Your task to perform on an android device: search for console tables on article.com Image 0: 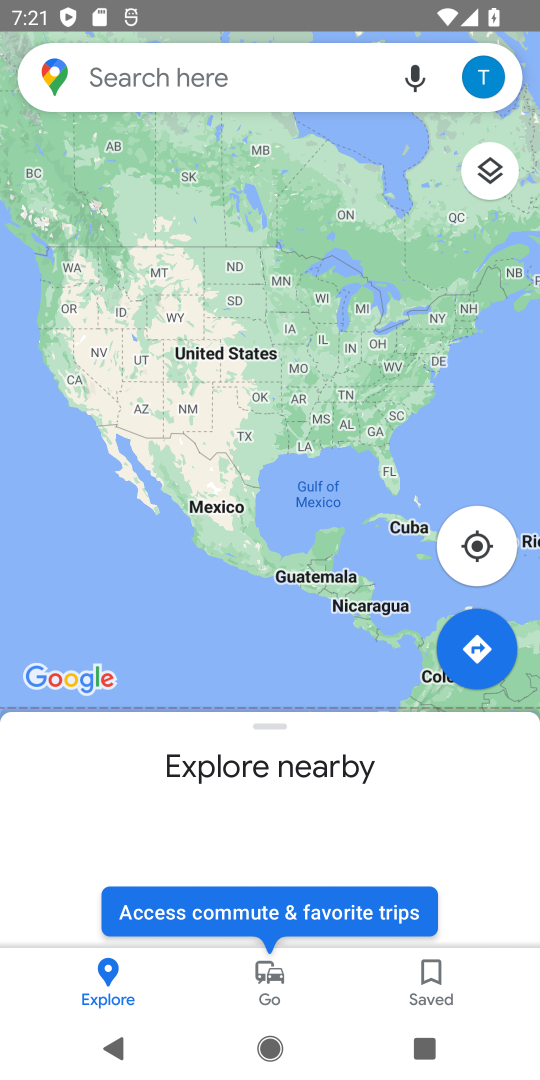
Step 0: press home button
Your task to perform on an android device: search for console tables on article.com Image 1: 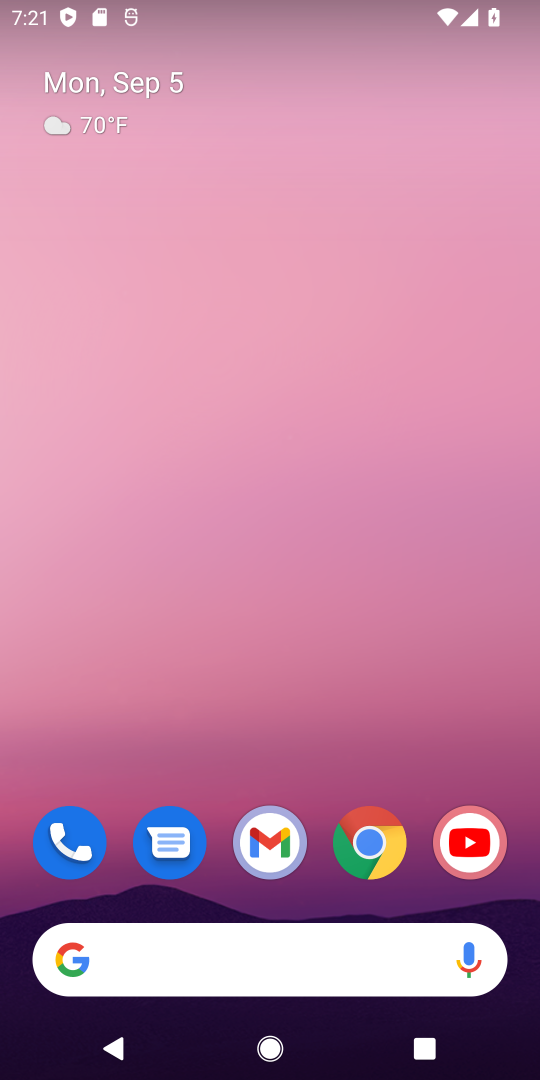
Step 1: click (371, 845)
Your task to perform on an android device: search for console tables on article.com Image 2: 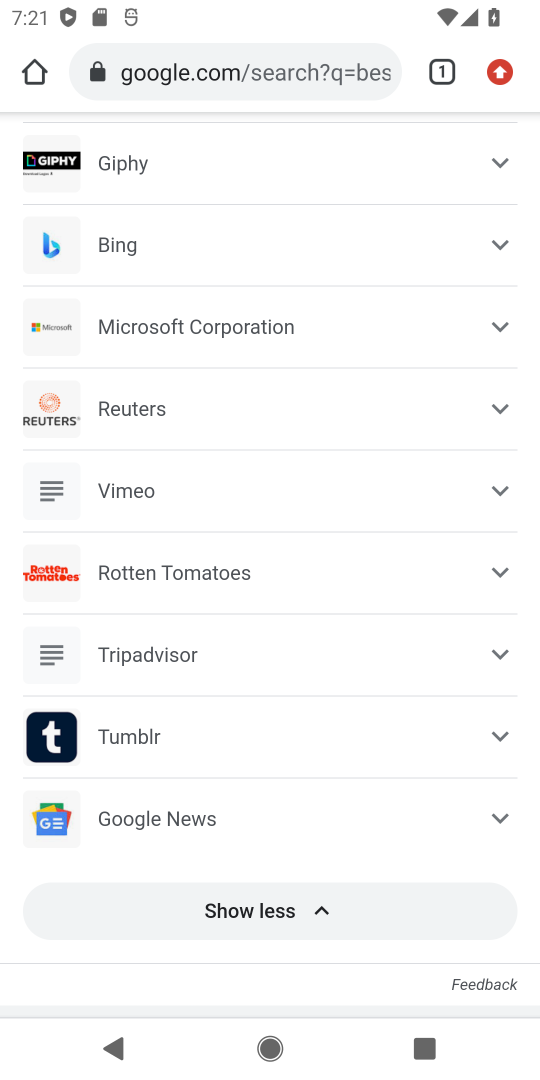
Step 2: click (308, 78)
Your task to perform on an android device: search for console tables on article.com Image 3: 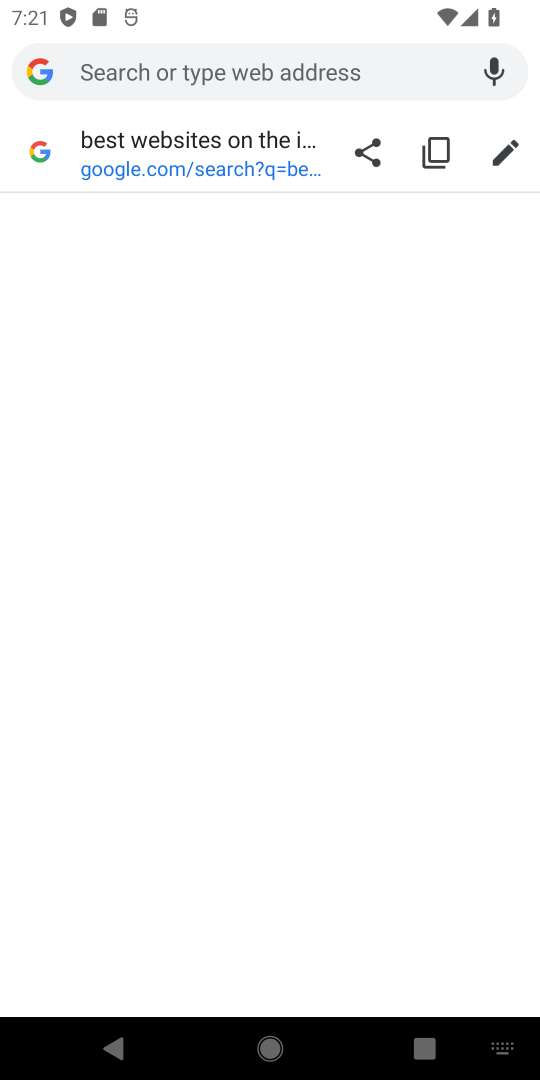
Step 3: type "article.com"
Your task to perform on an android device: search for console tables on article.com Image 4: 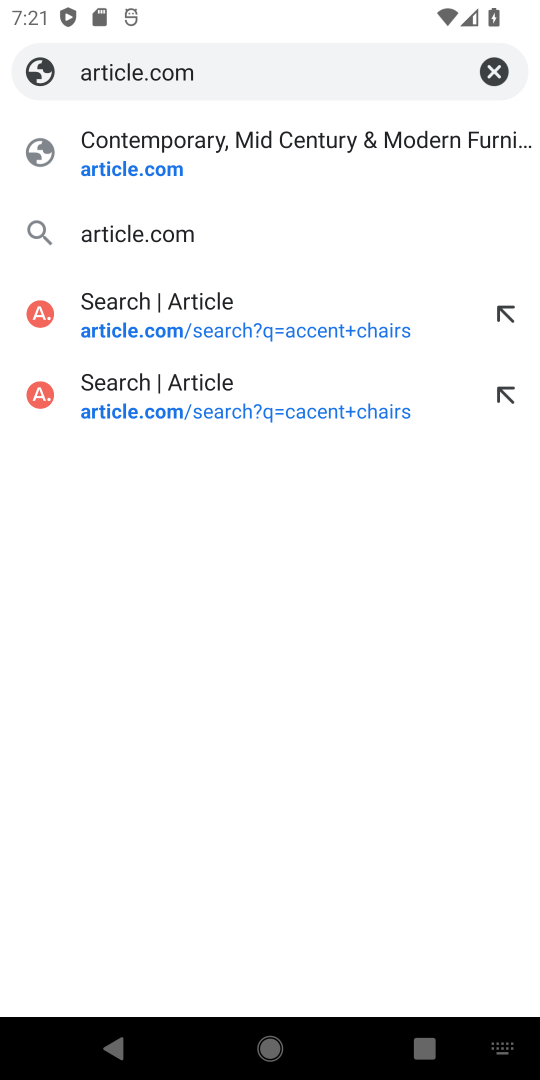
Step 4: click (203, 233)
Your task to perform on an android device: search for console tables on article.com Image 5: 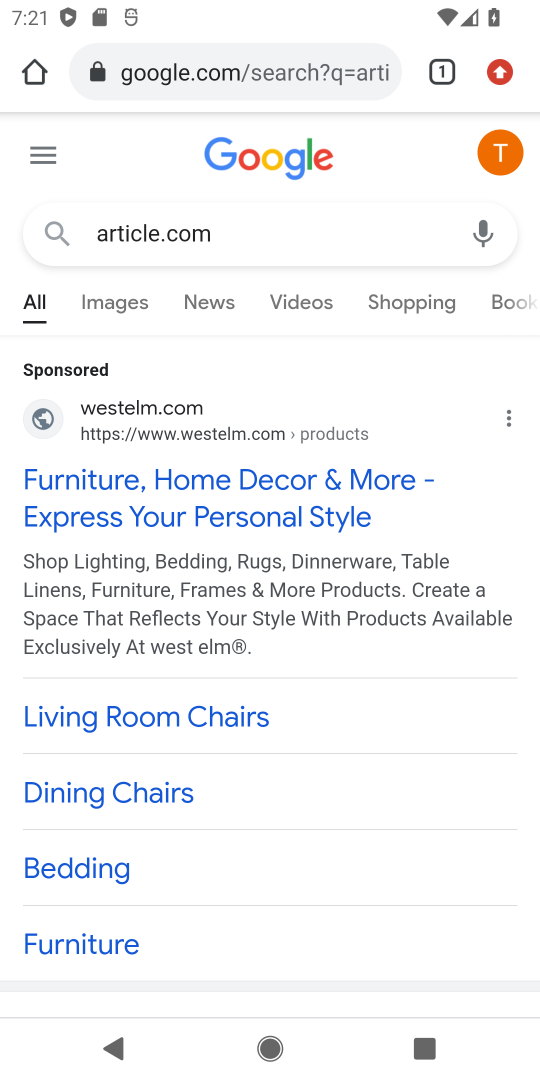
Step 5: drag from (244, 906) to (377, 705)
Your task to perform on an android device: search for console tables on article.com Image 6: 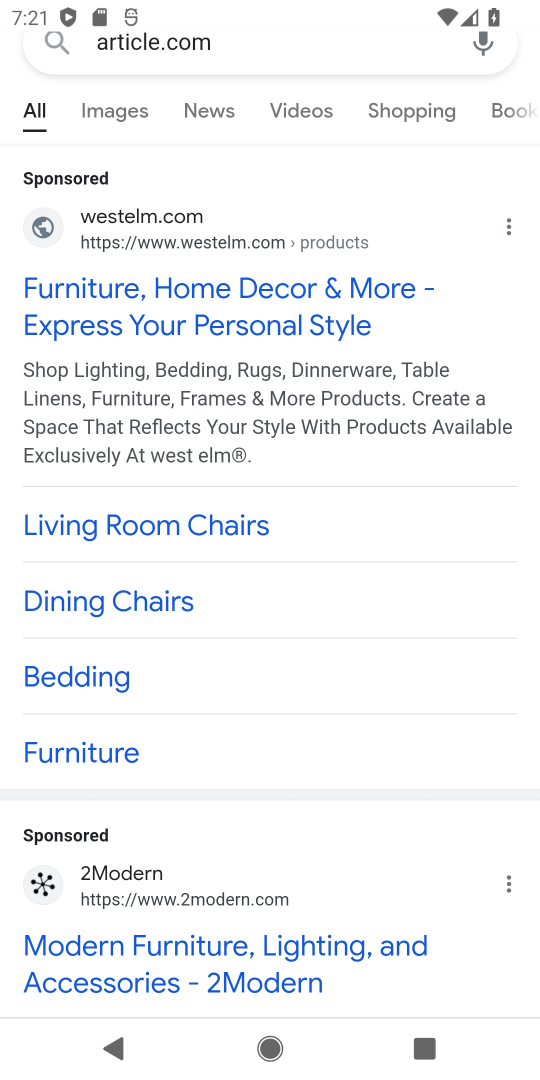
Step 6: drag from (272, 930) to (348, 739)
Your task to perform on an android device: search for console tables on article.com Image 7: 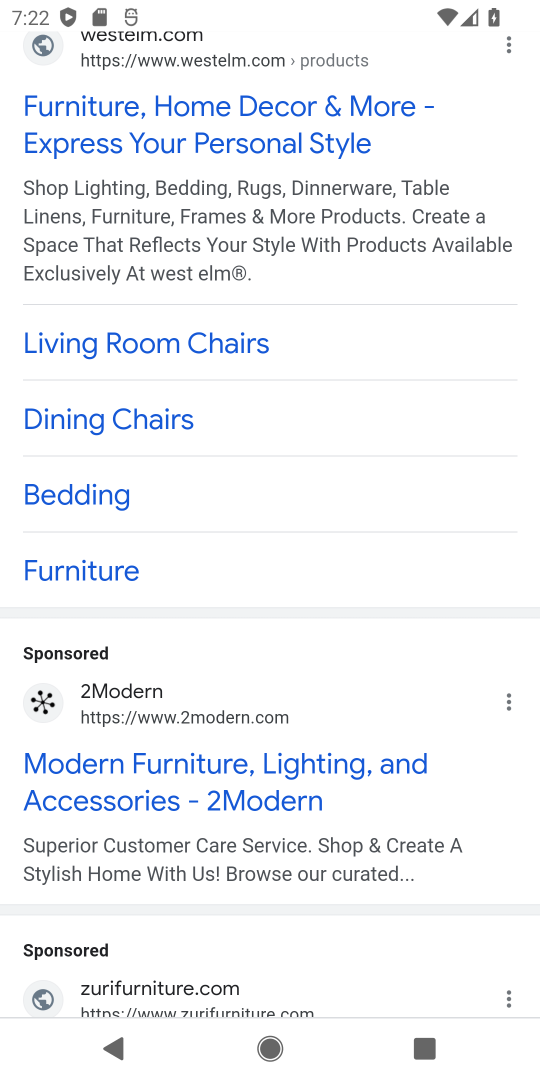
Step 7: drag from (229, 900) to (320, 742)
Your task to perform on an android device: search for console tables on article.com Image 8: 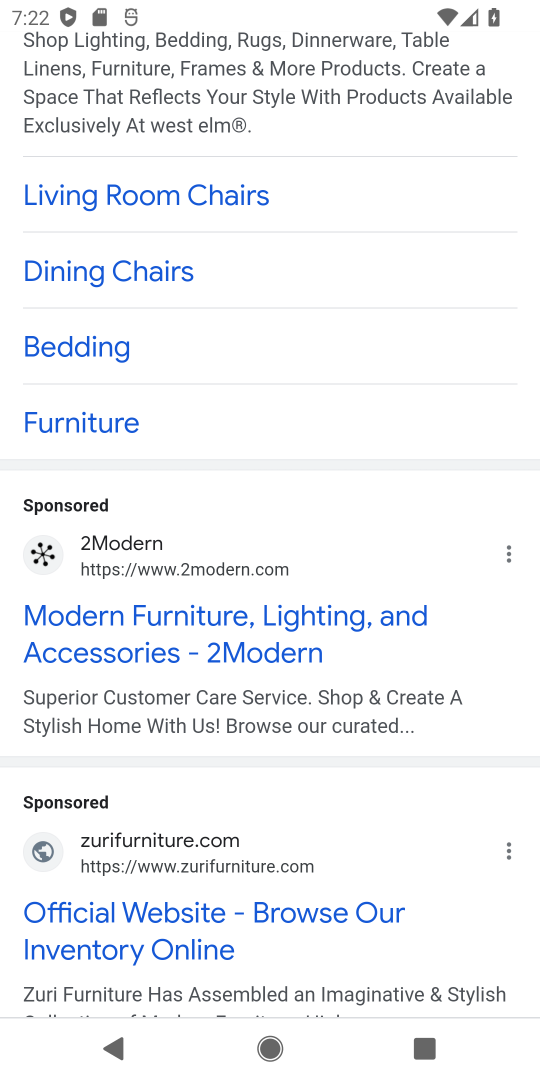
Step 8: drag from (253, 947) to (375, 751)
Your task to perform on an android device: search for console tables on article.com Image 9: 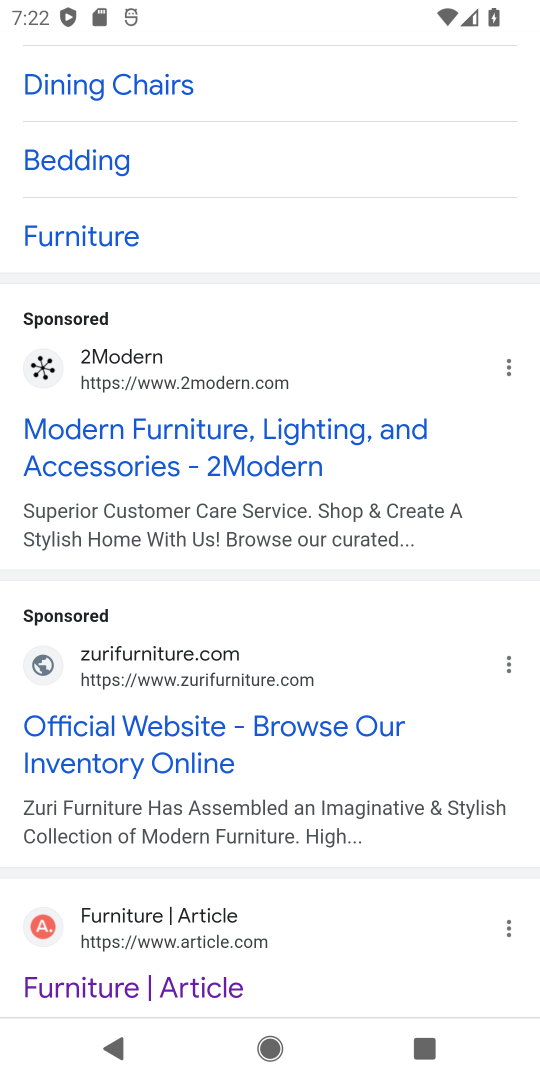
Step 9: drag from (283, 968) to (360, 819)
Your task to perform on an android device: search for console tables on article.com Image 10: 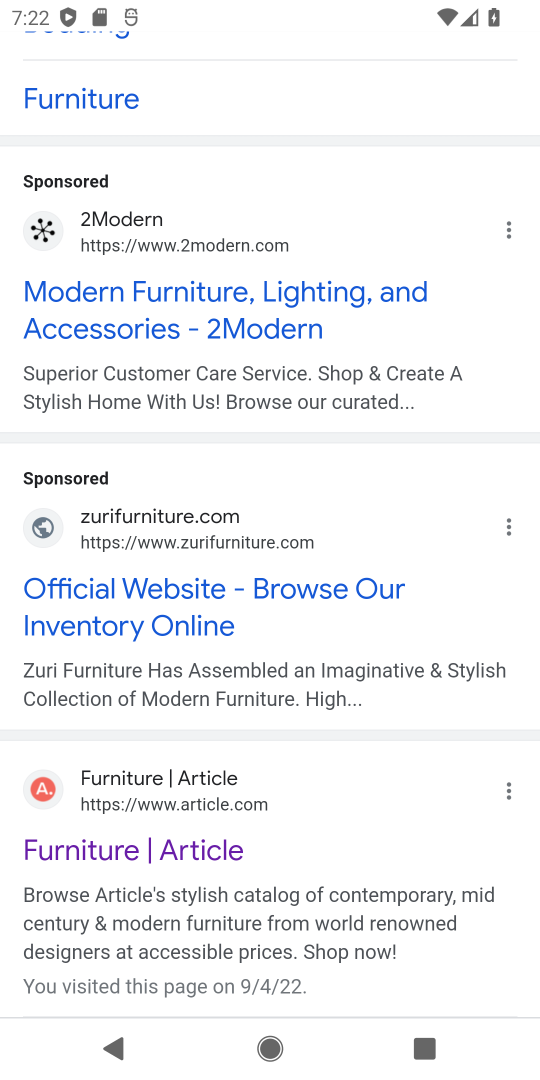
Step 10: click (254, 869)
Your task to perform on an android device: search for console tables on article.com Image 11: 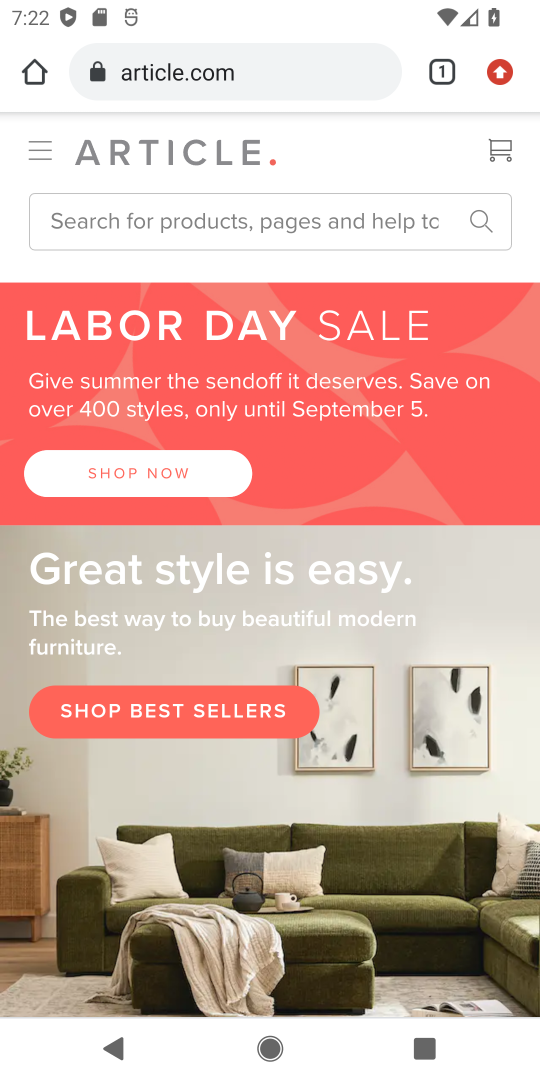
Step 11: click (266, 224)
Your task to perform on an android device: search for console tables on article.com Image 12: 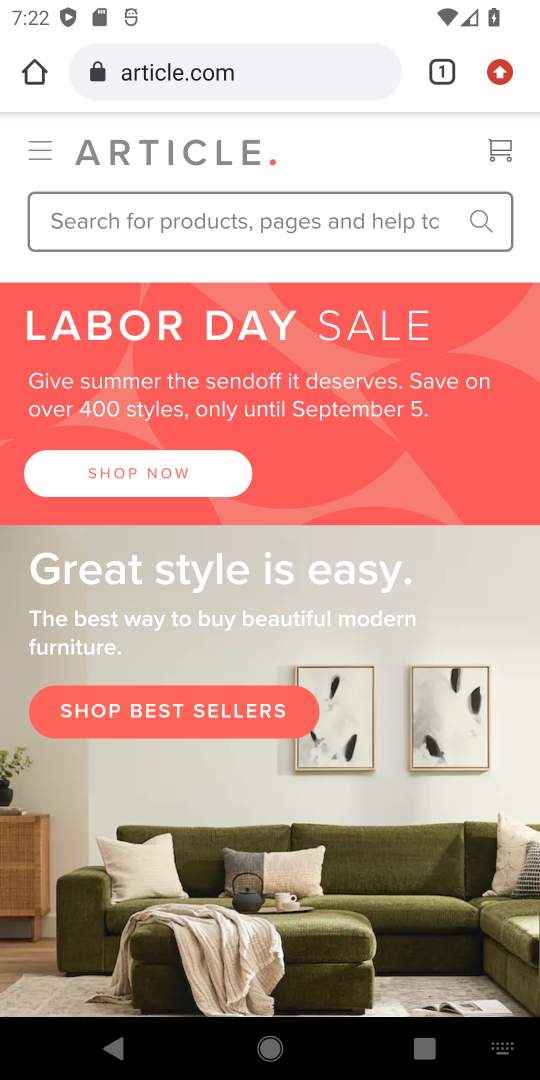
Step 12: click (360, 223)
Your task to perform on an android device: search for console tables on article.com Image 13: 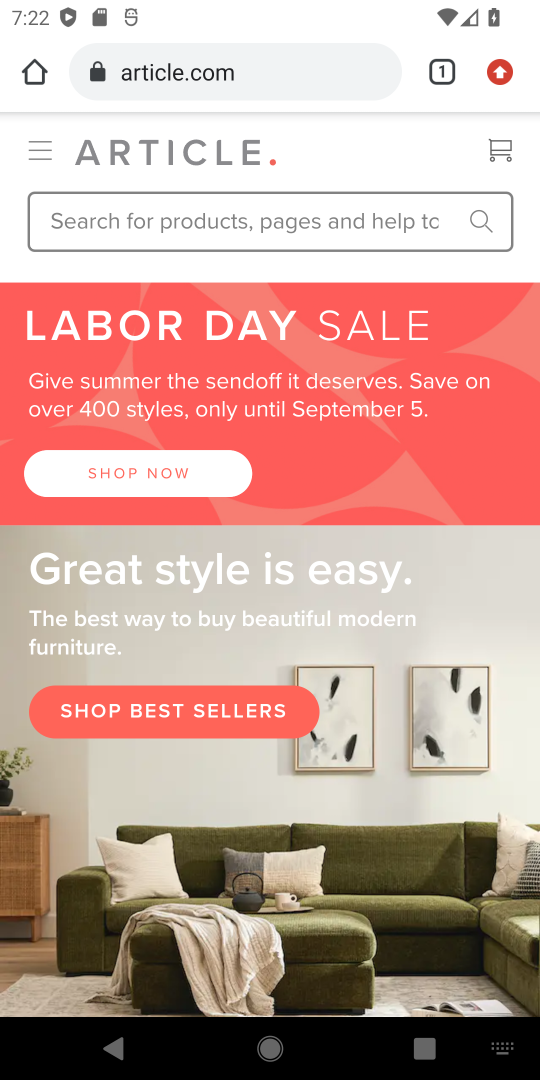
Step 13: type "console tables"
Your task to perform on an android device: search for console tables on article.com Image 14: 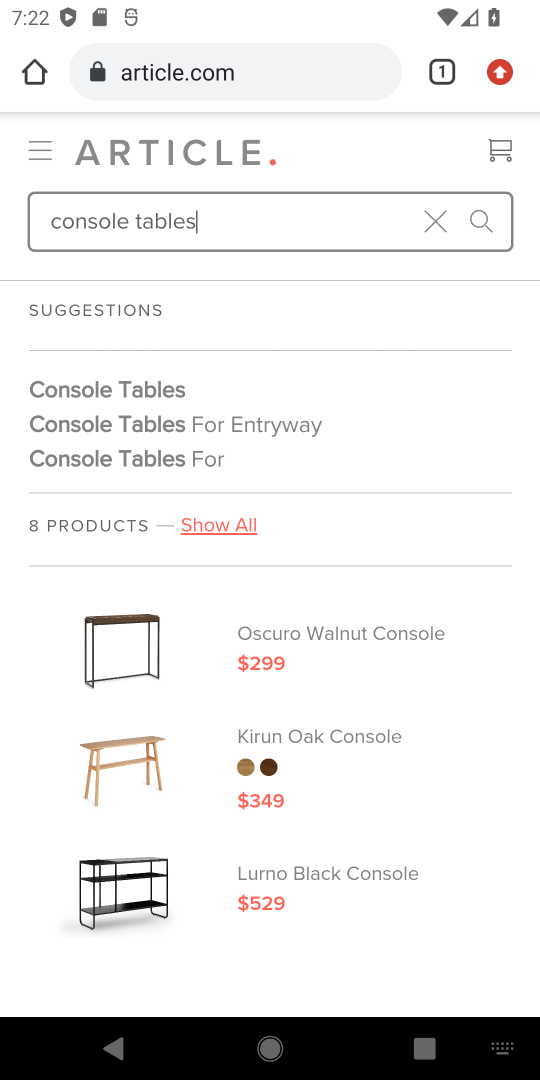
Step 14: click (482, 223)
Your task to perform on an android device: search for console tables on article.com Image 15: 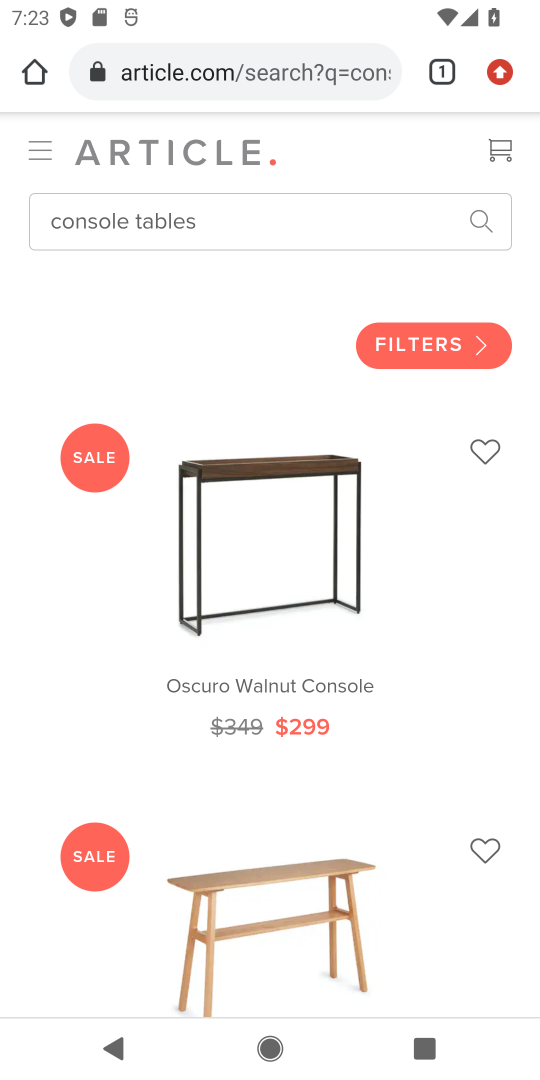
Step 15: task complete